Your task to perform on an android device: What's on my calendar today? Image 0: 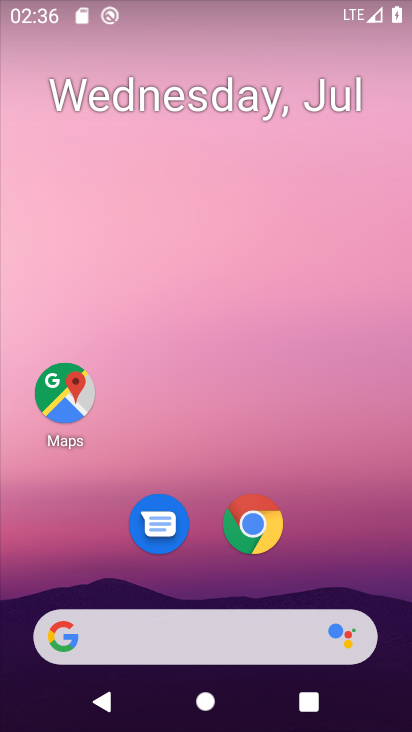
Step 0: drag from (346, 491) to (394, 80)
Your task to perform on an android device: What's on my calendar today? Image 1: 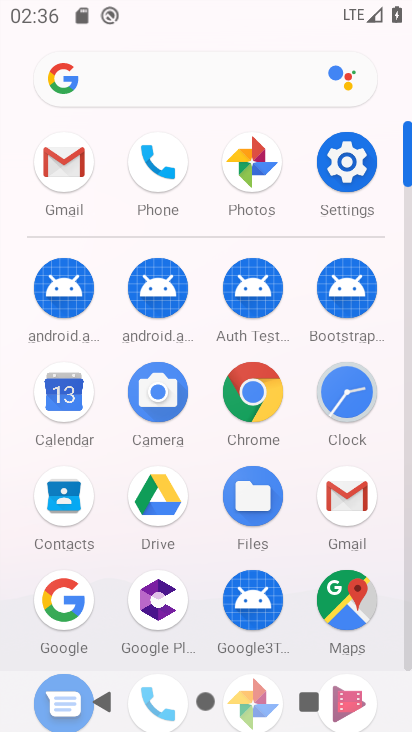
Step 1: click (72, 393)
Your task to perform on an android device: What's on my calendar today? Image 2: 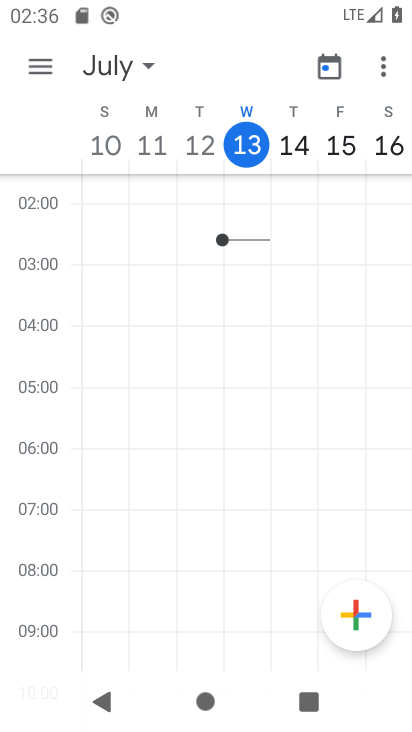
Step 2: click (240, 142)
Your task to perform on an android device: What's on my calendar today? Image 3: 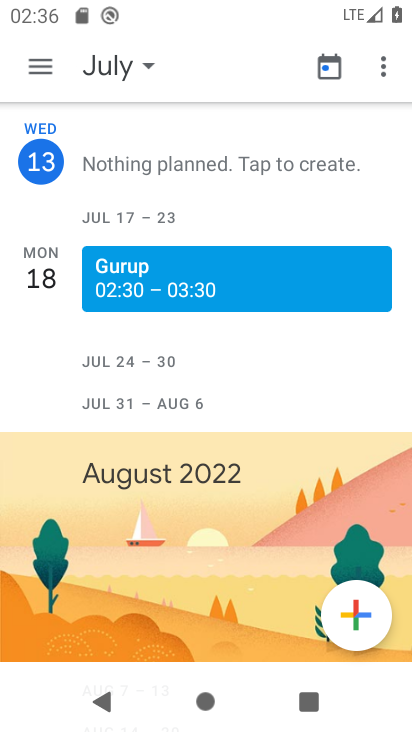
Step 3: task complete